Your task to perform on an android device: manage bookmarks in the chrome app Image 0: 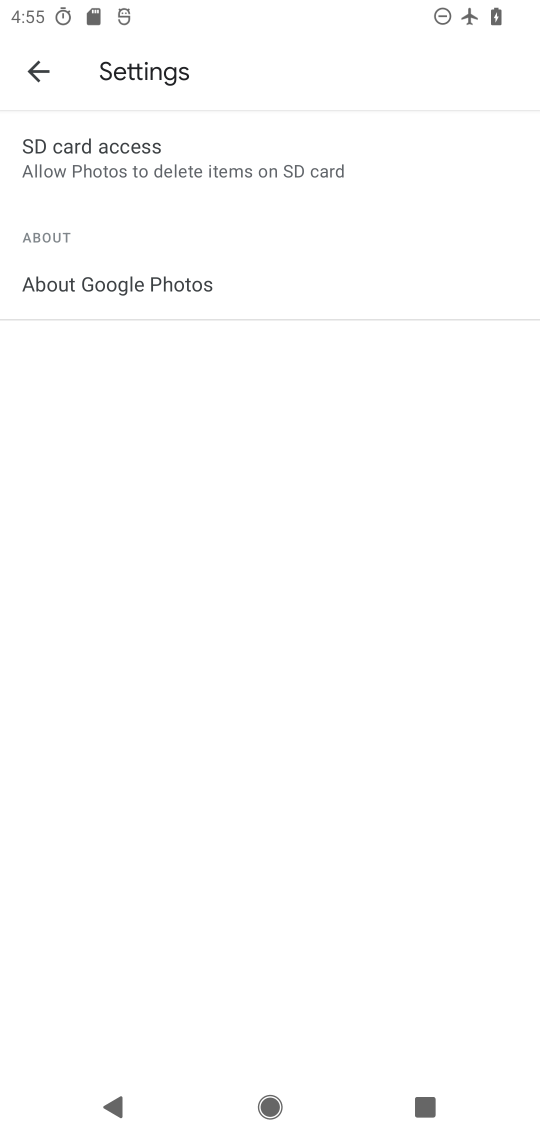
Step 0: click (56, 78)
Your task to perform on an android device: manage bookmarks in the chrome app Image 1: 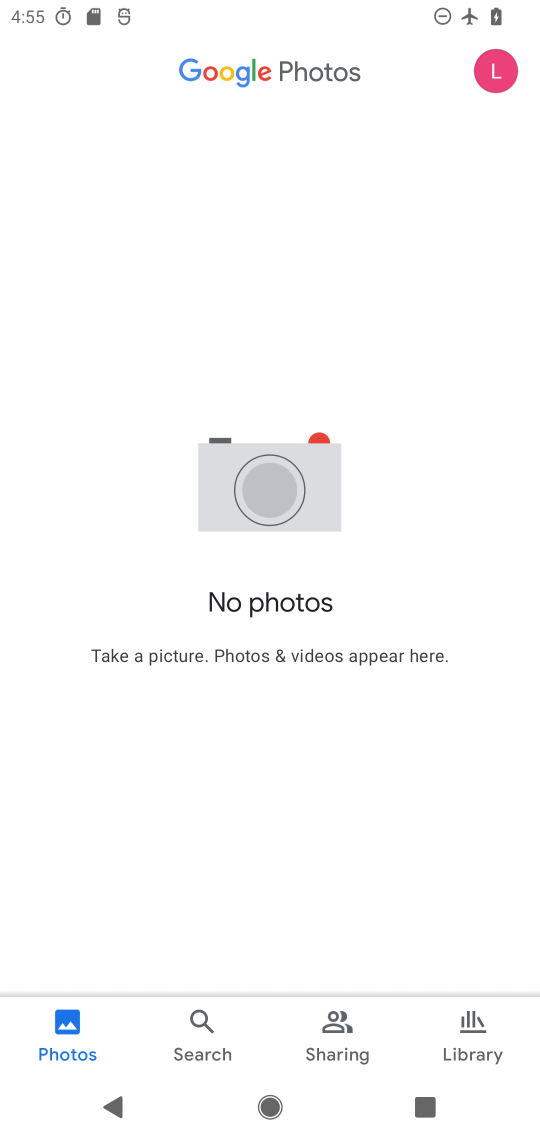
Step 1: press home button
Your task to perform on an android device: manage bookmarks in the chrome app Image 2: 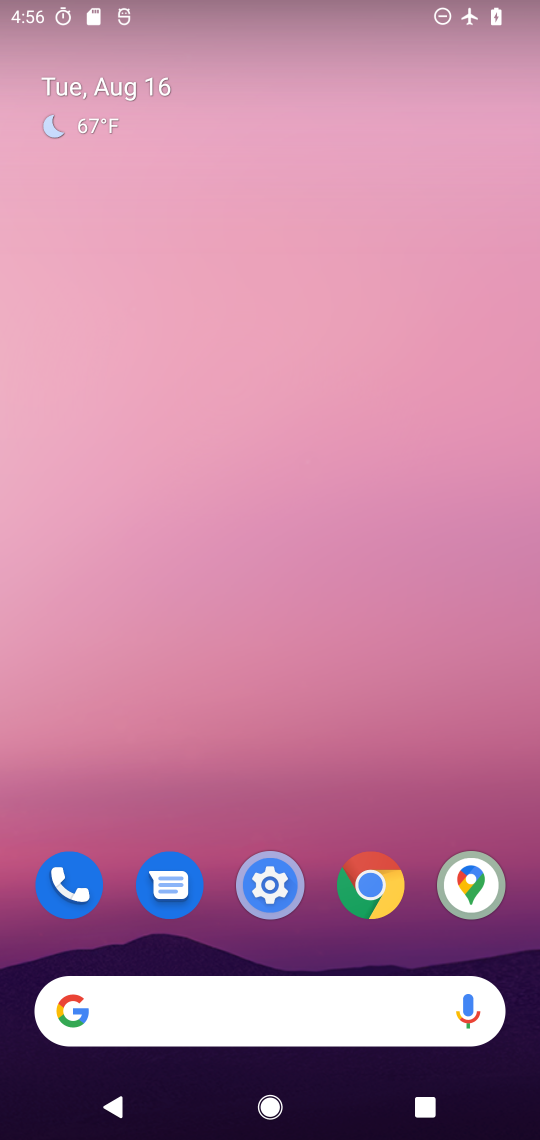
Step 2: drag from (268, 904) to (187, 131)
Your task to perform on an android device: manage bookmarks in the chrome app Image 3: 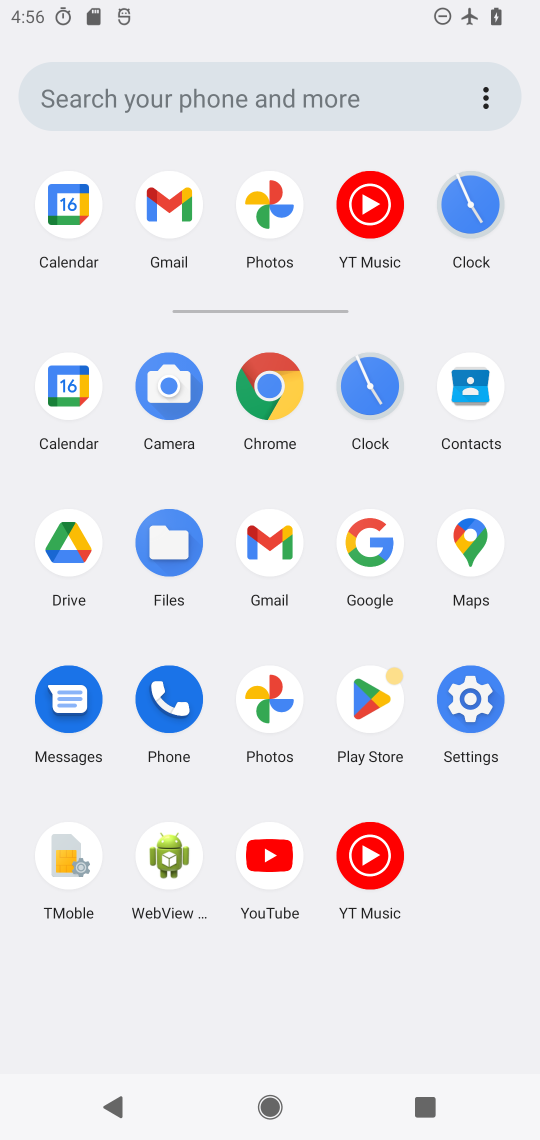
Step 3: click (460, 703)
Your task to perform on an android device: manage bookmarks in the chrome app Image 4: 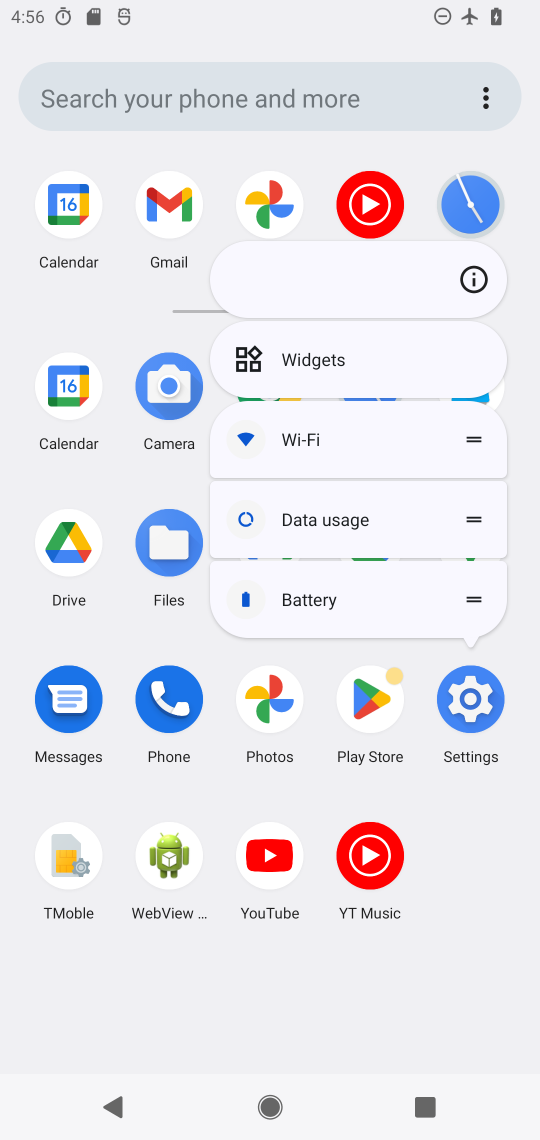
Step 4: click (418, 961)
Your task to perform on an android device: manage bookmarks in the chrome app Image 5: 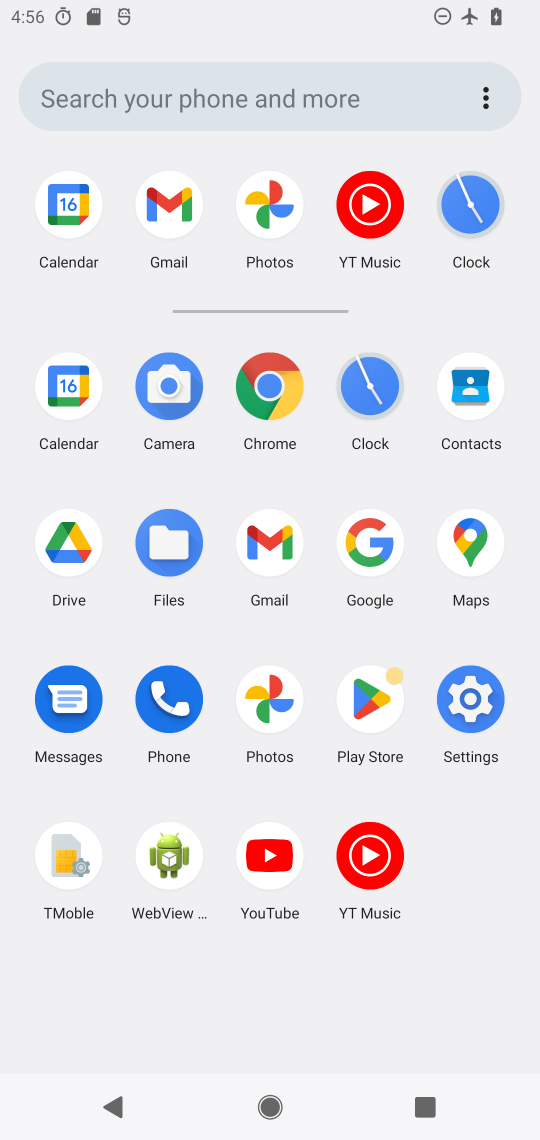
Step 5: click (267, 373)
Your task to perform on an android device: manage bookmarks in the chrome app Image 6: 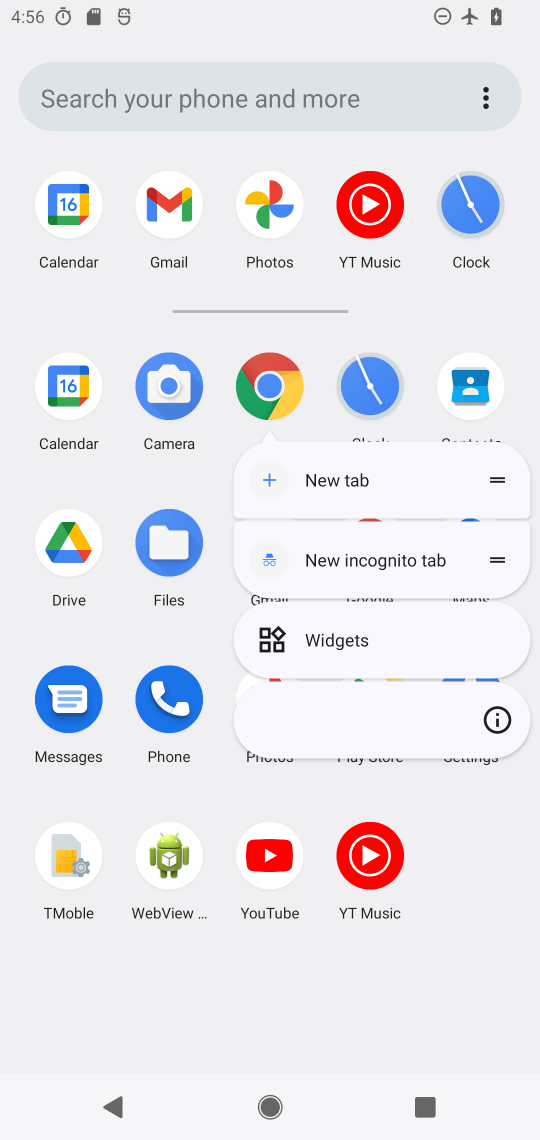
Step 6: click (267, 373)
Your task to perform on an android device: manage bookmarks in the chrome app Image 7: 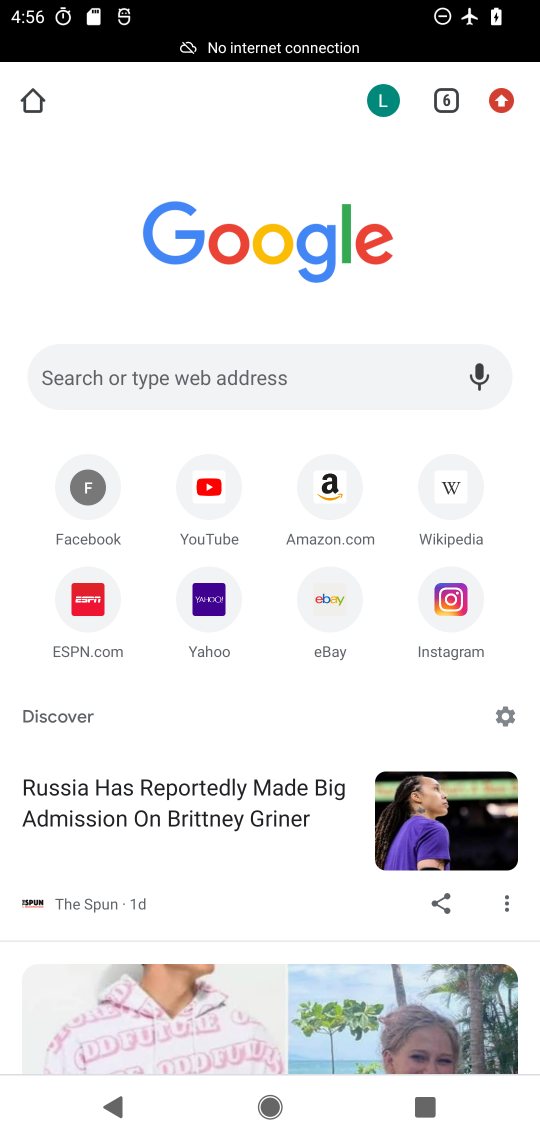
Step 7: click (507, 83)
Your task to perform on an android device: manage bookmarks in the chrome app Image 8: 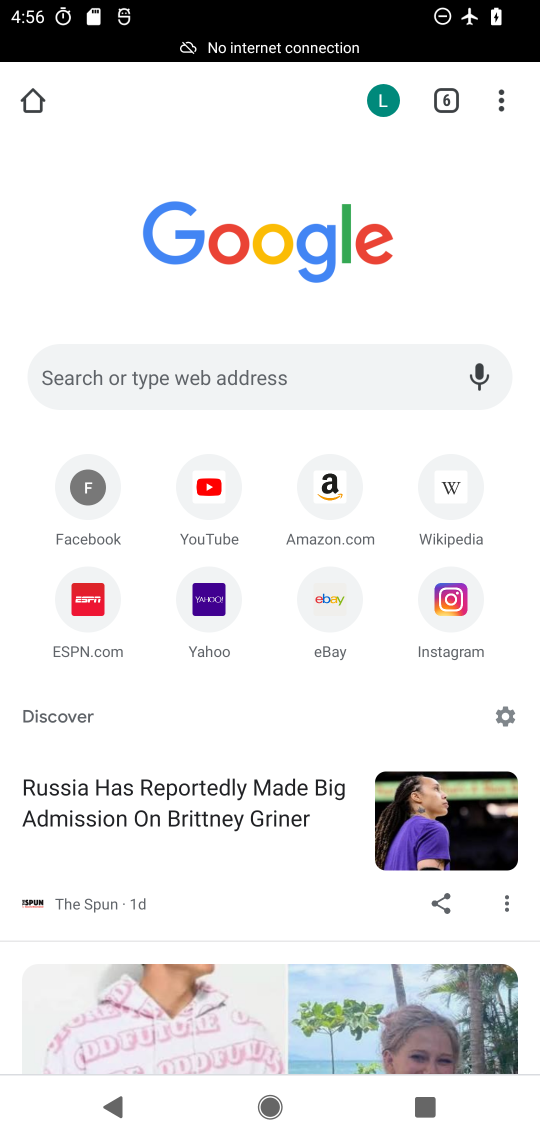
Step 8: click (494, 101)
Your task to perform on an android device: manage bookmarks in the chrome app Image 9: 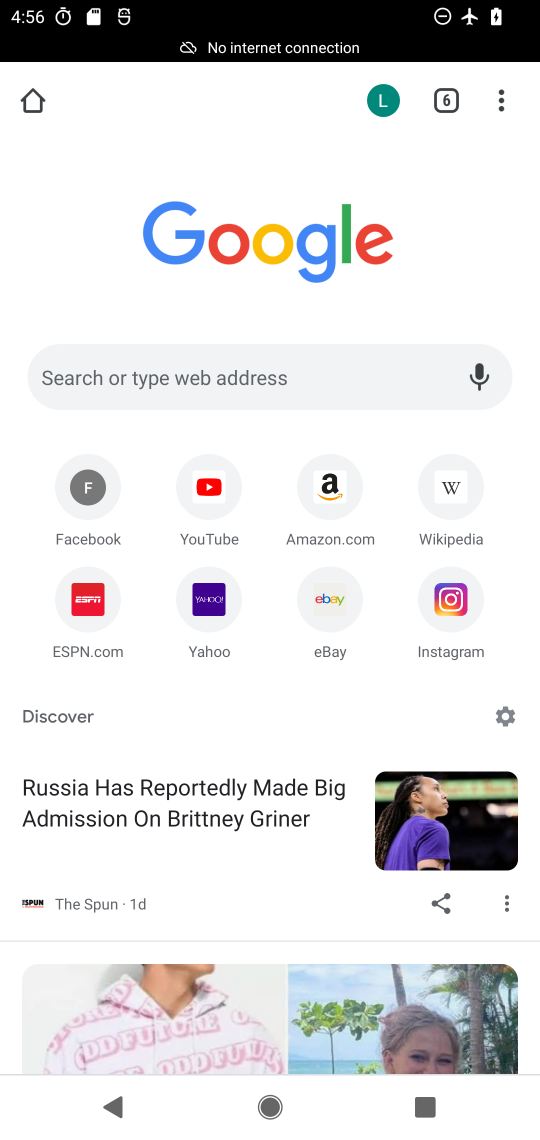
Step 9: click (494, 101)
Your task to perform on an android device: manage bookmarks in the chrome app Image 10: 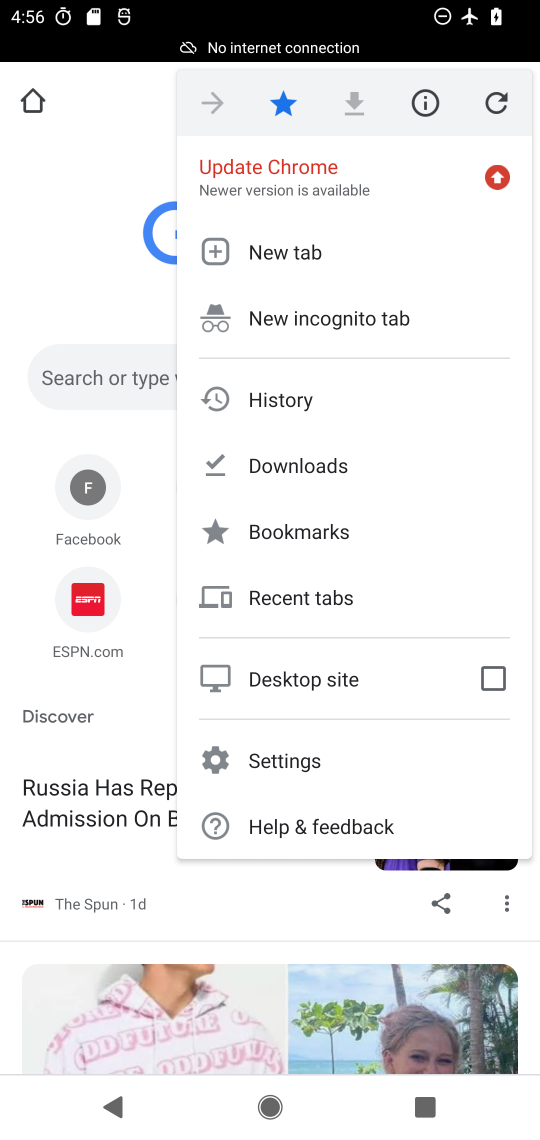
Step 10: click (316, 536)
Your task to perform on an android device: manage bookmarks in the chrome app Image 11: 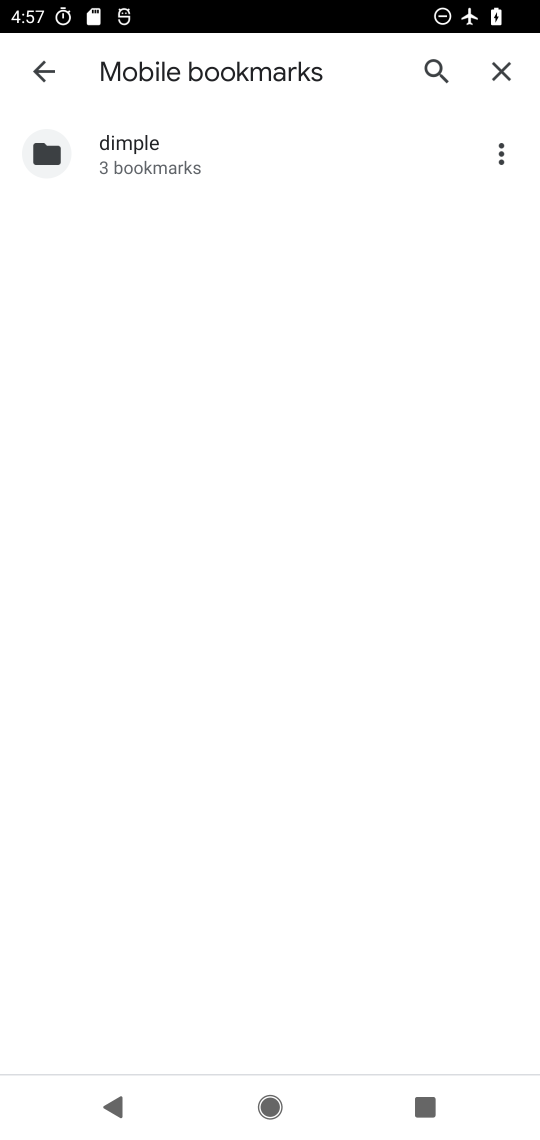
Step 11: task complete